Your task to perform on an android device: turn off priority inbox in the gmail app Image 0: 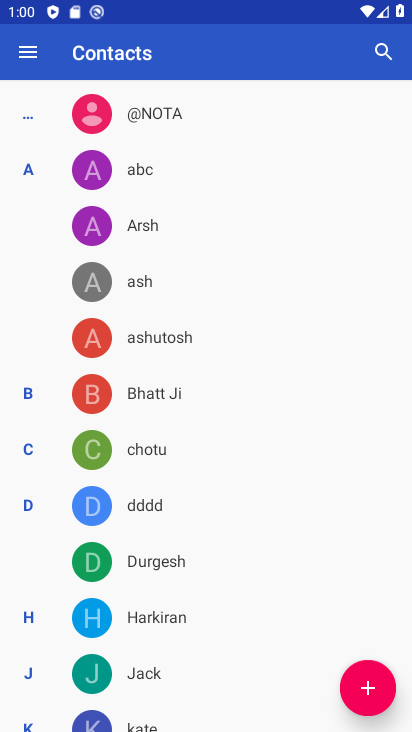
Step 0: press home button
Your task to perform on an android device: turn off priority inbox in the gmail app Image 1: 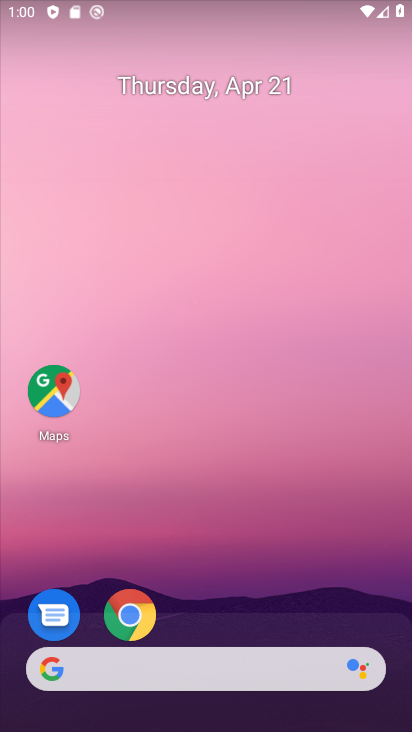
Step 1: drag from (243, 719) to (313, 43)
Your task to perform on an android device: turn off priority inbox in the gmail app Image 2: 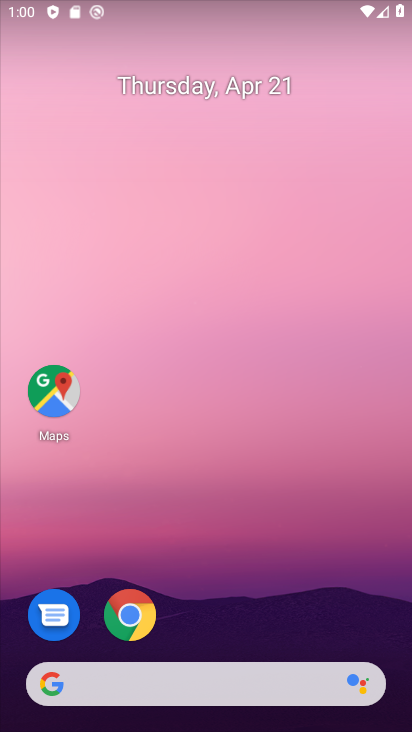
Step 2: drag from (190, 697) to (317, 63)
Your task to perform on an android device: turn off priority inbox in the gmail app Image 3: 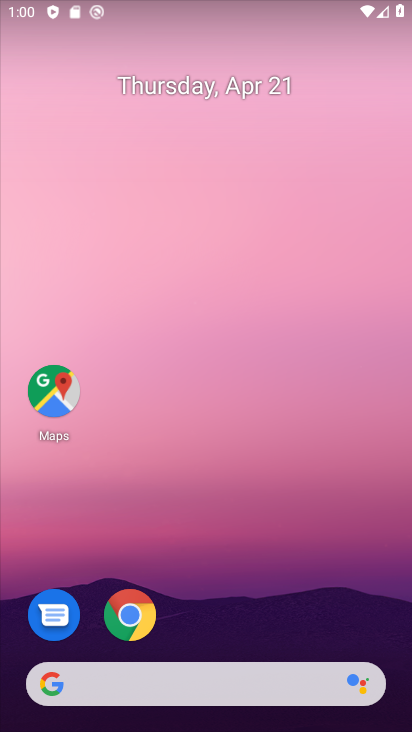
Step 3: drag from (260, 667) to (311, 118)
Your task to perform on an android device: turn off priority inbox in the gmail app Image 4: 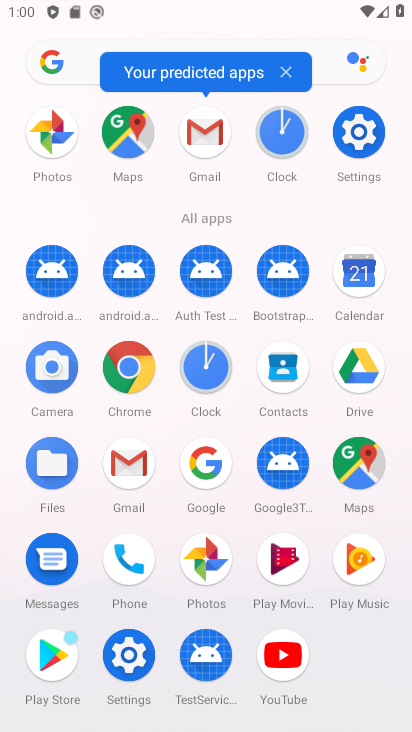
Step 4: click (118, 461)
Your task to perform on an android device: turn off priority inbox in the gmail app Image 5: 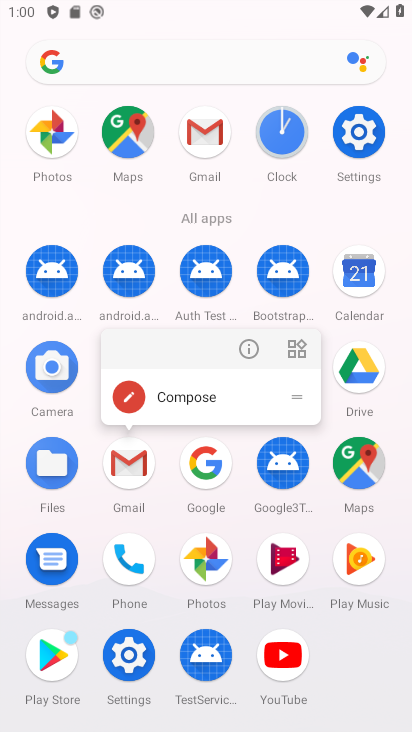
Step 5: click (118, 461)
Your task to perform on an android device: turn off priority inbox in the gmail app Image 6: 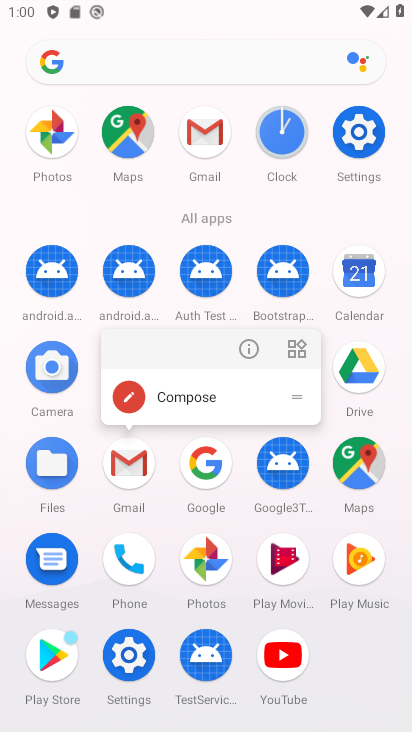
Step 6: click (118, 461)
Your task to perform on an android device: turn off priority inbox in the gmail app Image 7: 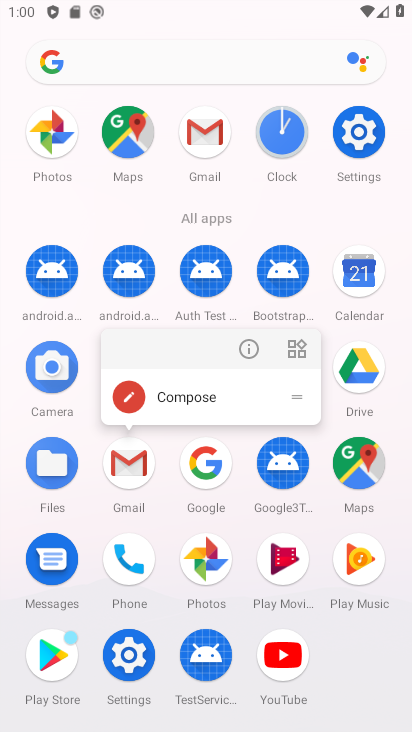
Step 7: click (118, 461)
Your task to perform on an android device: turn off priority inbox in the gmail app Image 8: 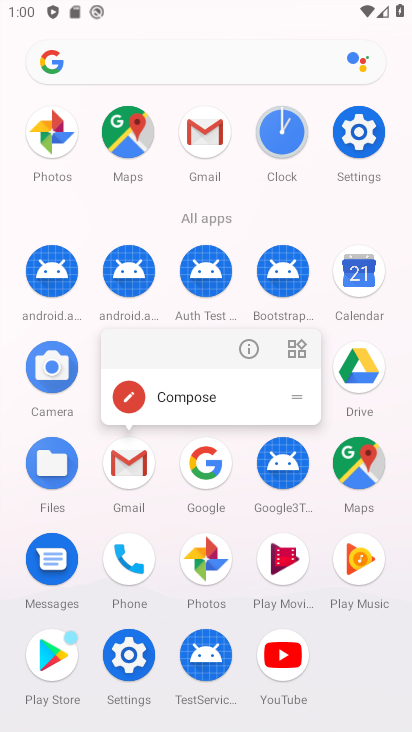
Step 8: click (118, 461)
Your task to perform on an android device: turn off priority inbox in the gmail app Image 9: 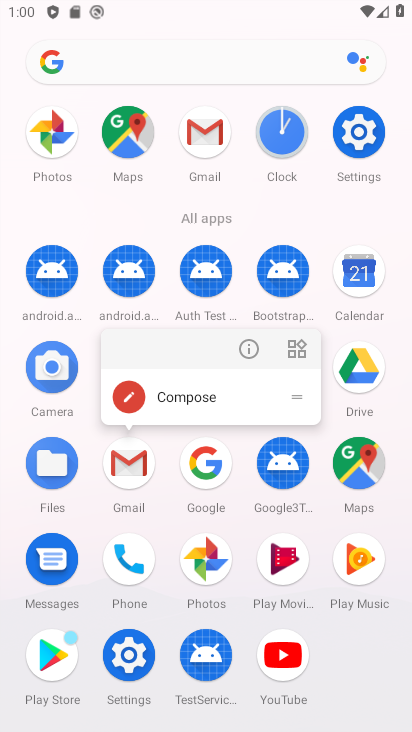
Step 9: click (118, 461)
Your task to perform on an android device: turn off priority inbox in the gmail app Image 10: 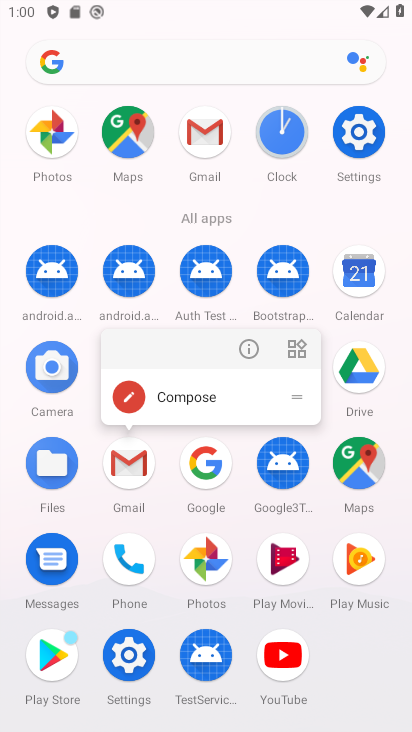
Step 10: click (118, 461)
Your task to perform on an android device: turn off priority inbox in the gmail app Image 11: 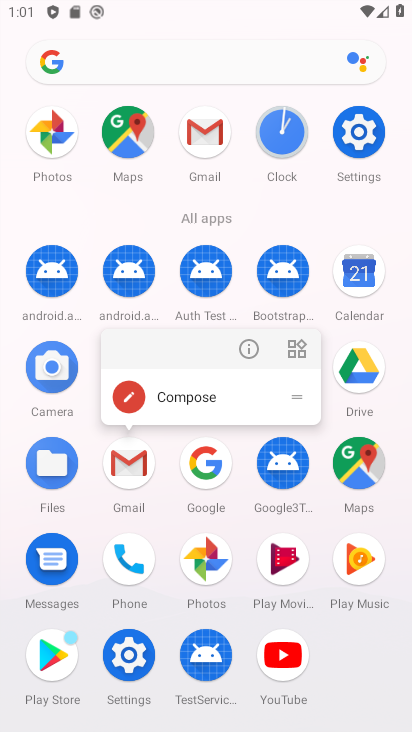
Step 11: click (134, 482)
Your task to perform on an android device: turn off priority inbox in the gmail app Image 12: 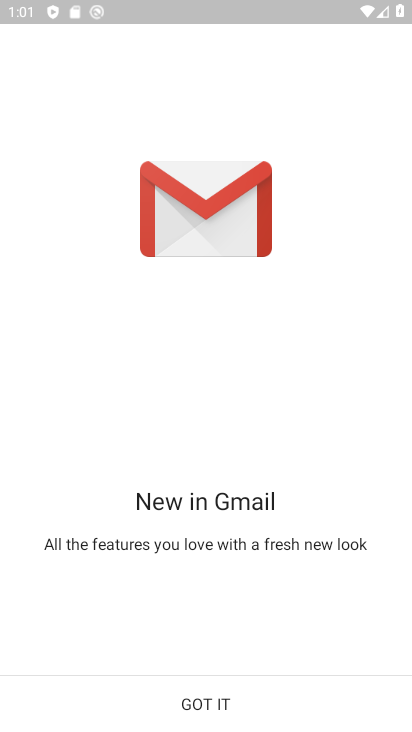
Step 12: click (240, 713)
Your task to perform on an android device: turn off priority inbox in the gmail app Image 13: 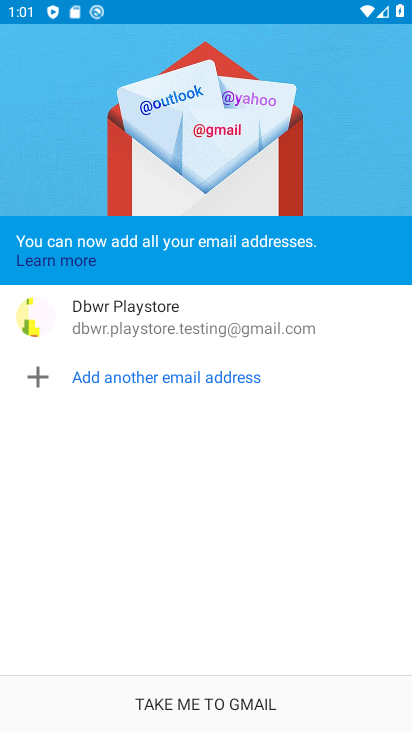
Step 13: click (167, 718)
Your task to perform on an android device: turn off priority inbox in the gmail app Image 14: 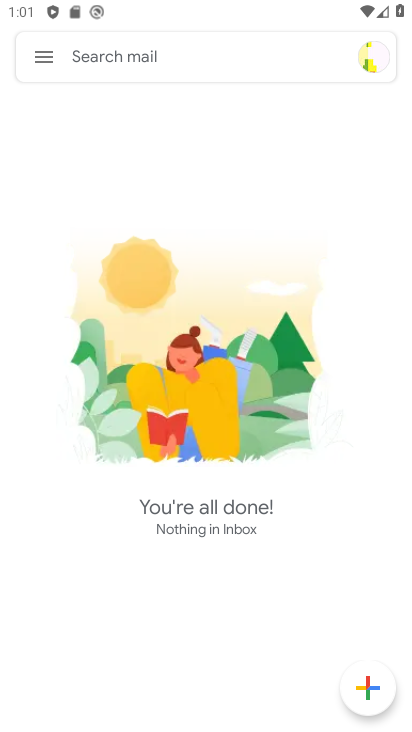
Step 14: click (34, 61)
Your task to perform on an android device: turn off priority inbox in the gmail app Image 15: 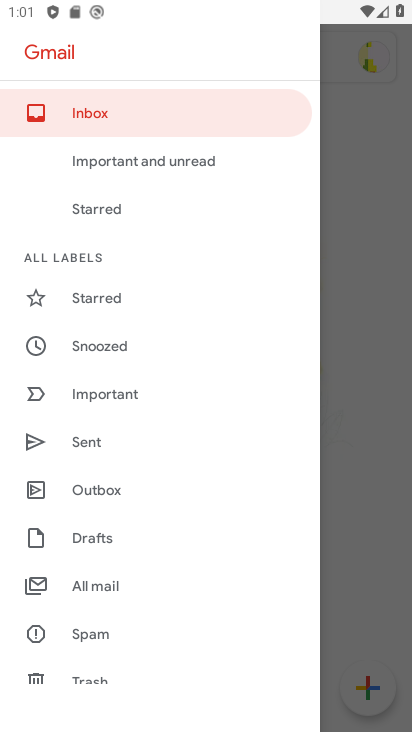
Step 15: drag from (126, 630) to (179, 269)
Your task to perform on an android device: turn off priority inbox in the gmail app Image 16: 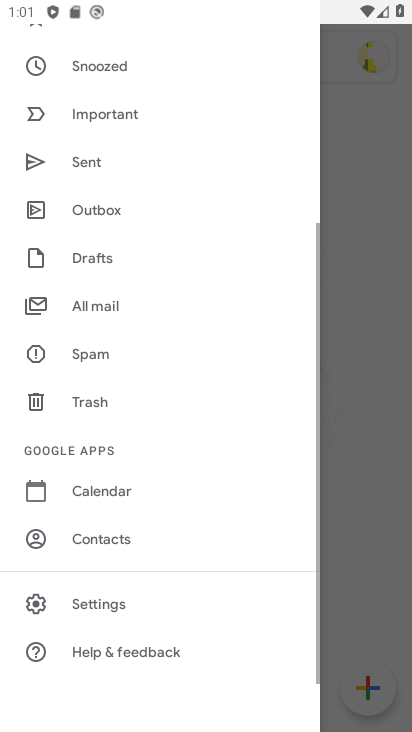
Step 16: click (117, 609)
Your task to perform on an android device: turn off priority inbox in the gmail app Image 17: 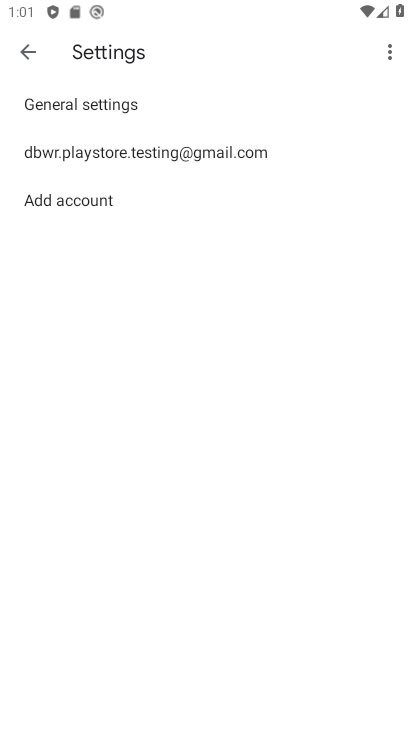
Step 17: click (141, 147)
Your task to perform on an android device: turn off priority inbox in the gmail app Image 18: 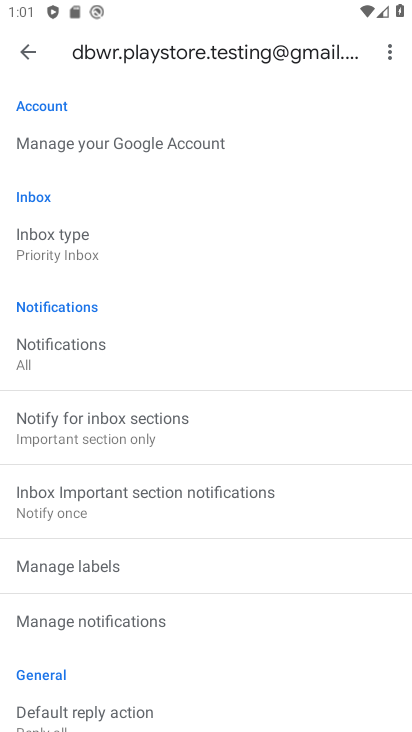
Step 18: click (56, 246)
Your task to perform on an android device: turn off priority inbox in the gmail app Image 19: 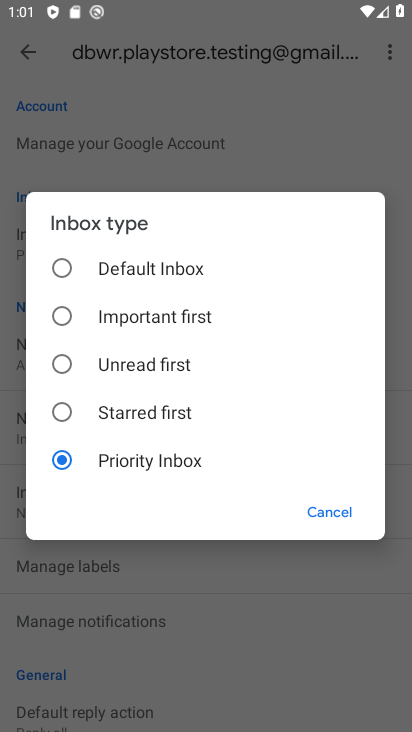
Step 19: task complete